Your task to perform on an android device: Open Google Chrome and open the bookmarks view Image 0: 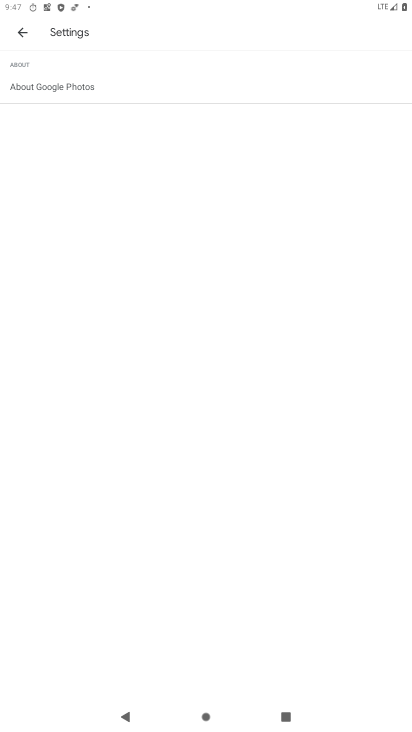
Step 0: press home button
Your task to perform on an android device: Open Google Chrome and open the bookmarks view Image 1: 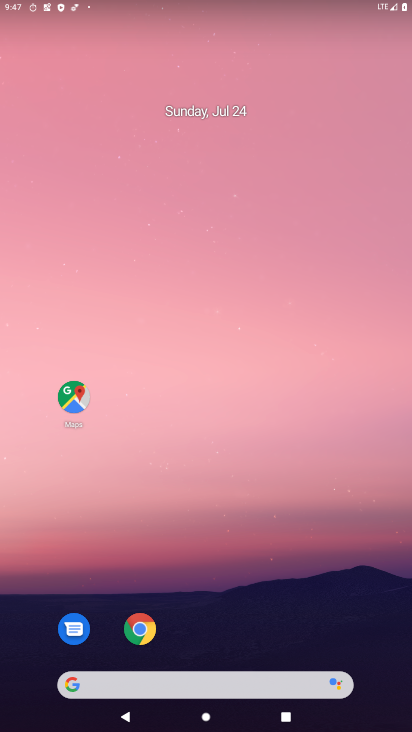
Step 1: click (144, 621)
Your task to perform on an android device: Open Google Chrome and open the bookmarks view Image 2: 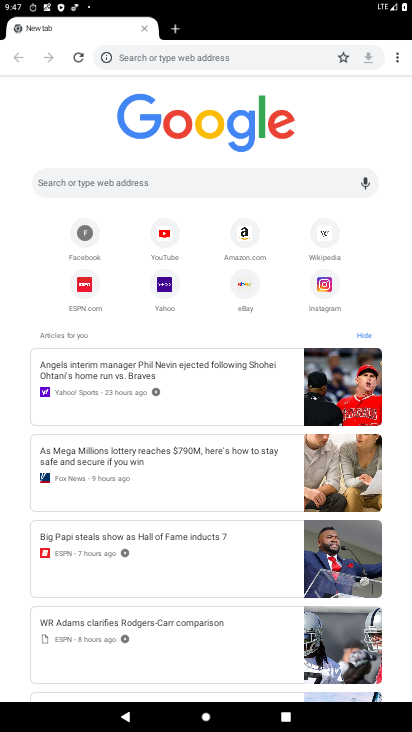
Step 2: click (396, 58)
Your task to perform on an android device: Open Google Chrome and open the bookmarks view Image 3: 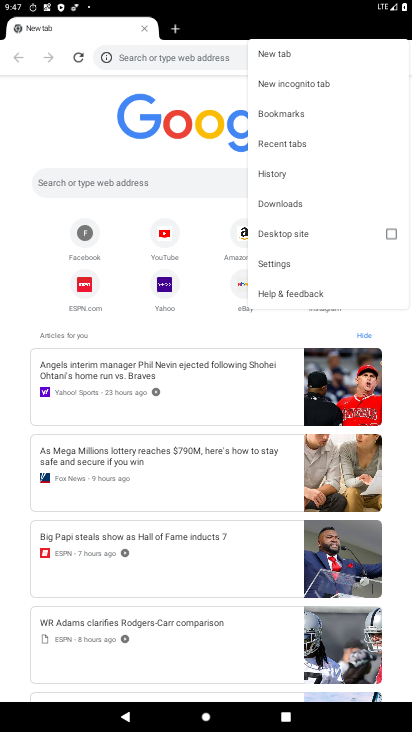
Step 3: click (288, 112)
Your task to perform on an android device: Open Google Chrome and open the bookmarks view Image 4: 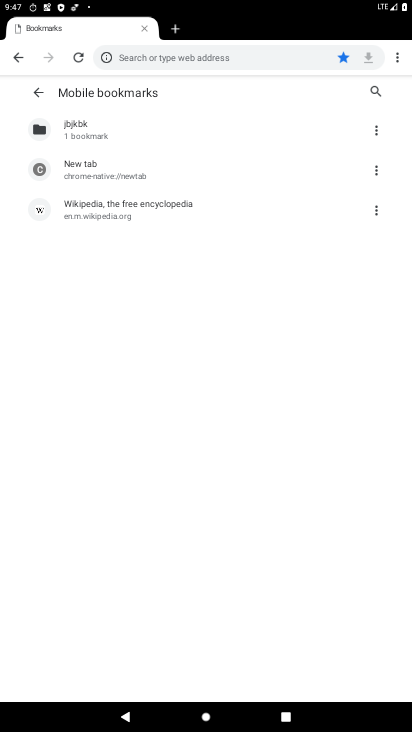
Step 4: task complete